Your task to perform on an android device: Open accessibility settings Image 0: 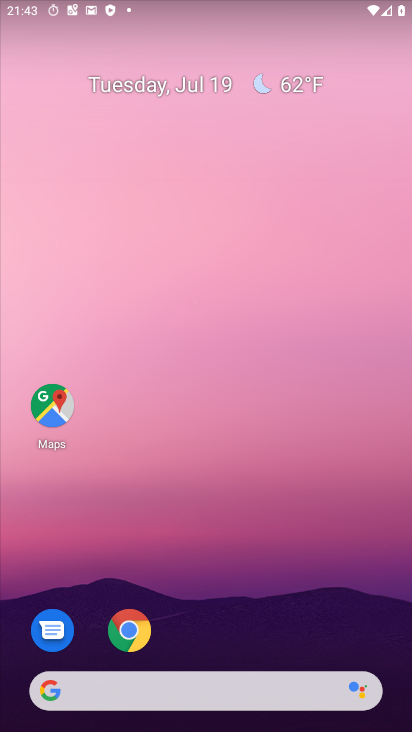
Step 0: drag from (40, 701) to (363, 16)
Your task to perform on an android device: Open accessibility settings Image 1: 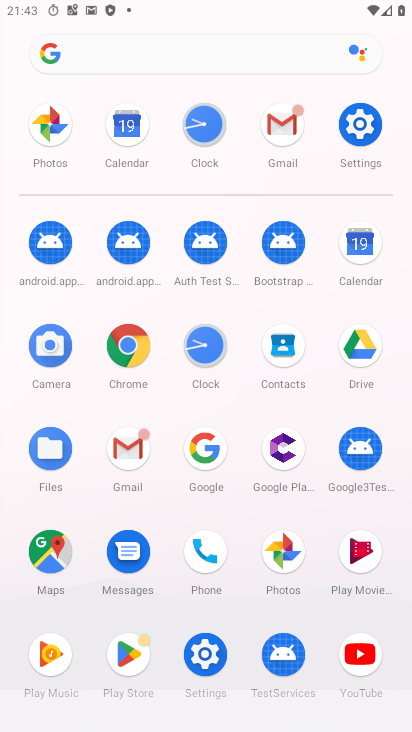
Step 1: click (208, 666)
Your task to perform on an android device: Open accessibility settings Image 2: 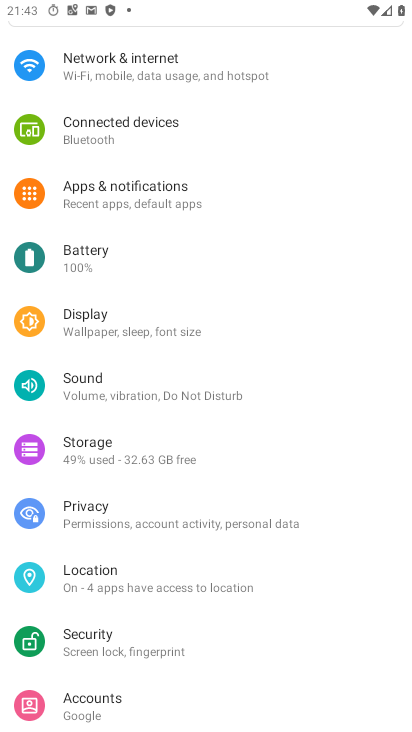
Step 2: drag from (326, 399) to (321, 360)
Your task to perform on an android device: Open accessibility settings Image 3: 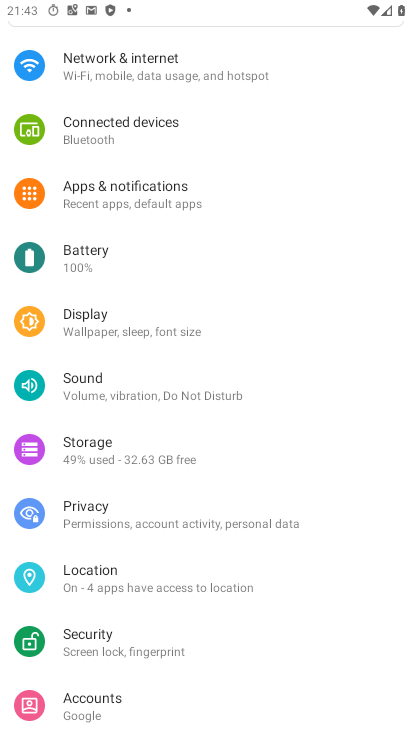
Step 3: drag from (262, 693) to (308, 348)
Your task to perform on an android device: Open accessibility settings Image 4: 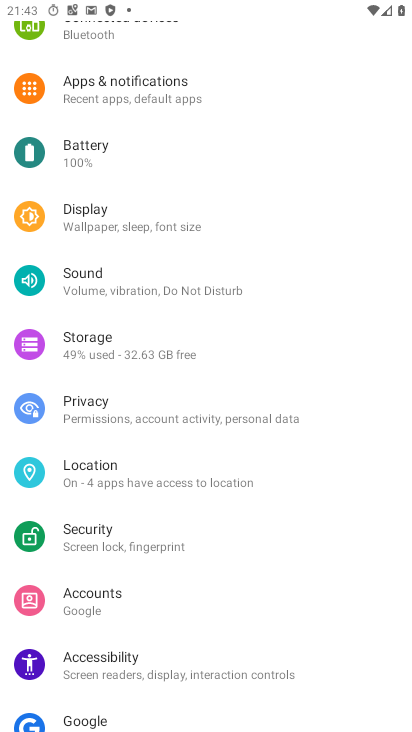
Step 4: click (147, 661)
Your task to perform on an android device: Open accessibility settings Image 5: 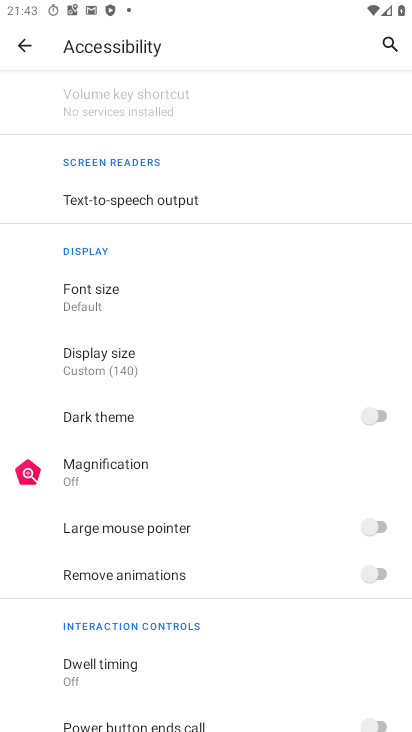
Step 5: task complete